Your task to perform on an android device: Go to location settings Image 0: 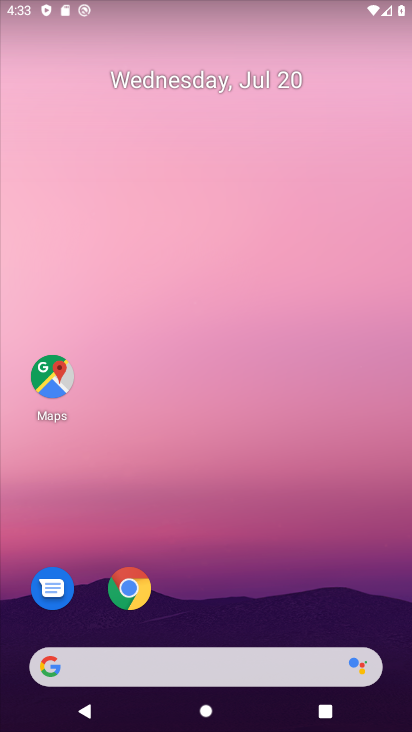
Step 0: drag from (298, 595) to (217, 96)
Your task to perform on an android device: Go to location settings Image 1: 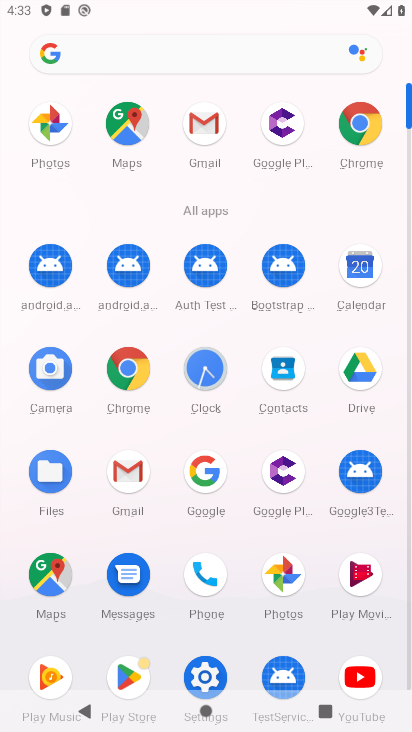
Step 1: click (208, 671)
Your task to perform on an android device: Go to location settings Image 2: 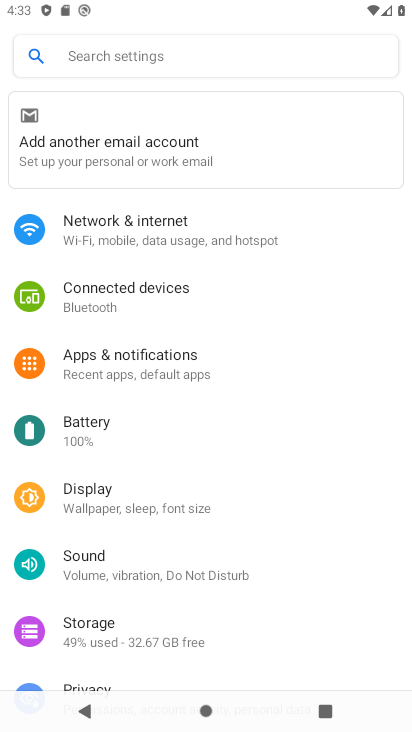
Step 2: drag from (275, 619) to (230, 162)
Your task to perform on an android device: Go to location settings Image 3: 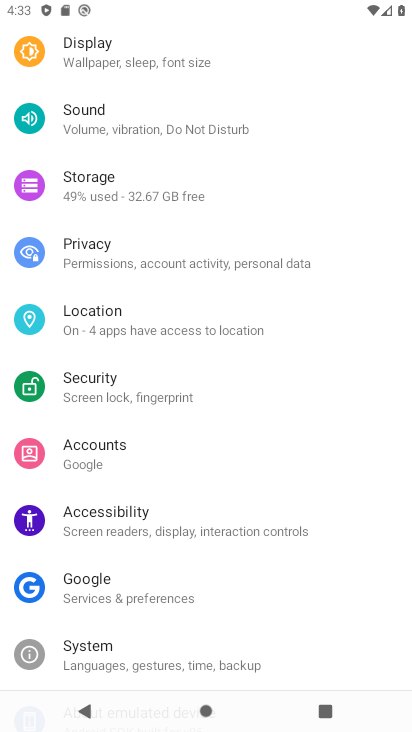
Step 3: click (201, 326)
Your task to perform on an android device: Go to location settings Image 4: 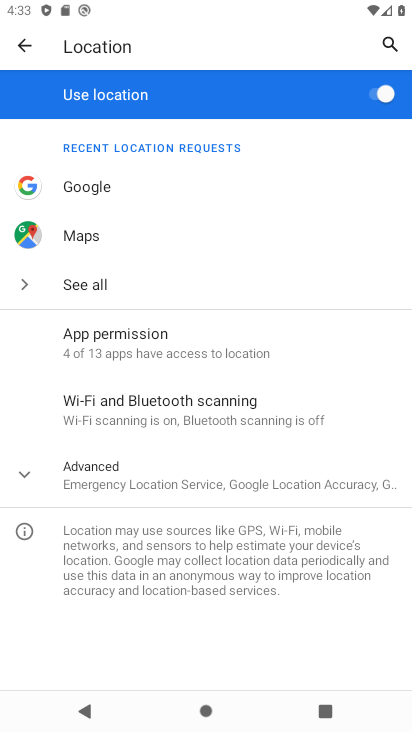
Step 4: task complete